Your task to perform on an android device: Go to battery settings Image 0: 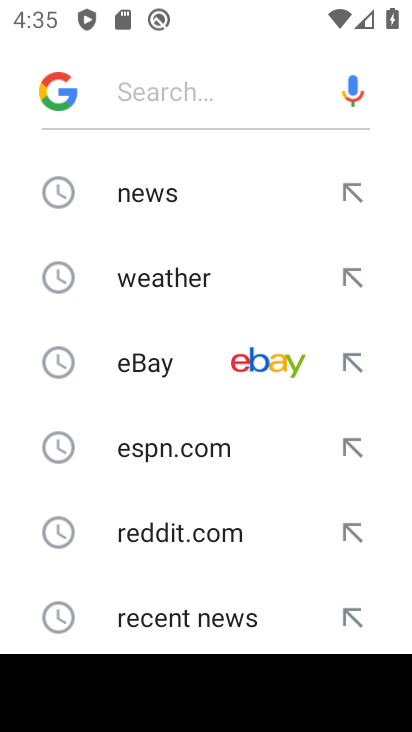
Step 0: press home button
Your task to perform on an android device: Go to battery settings Image 1: 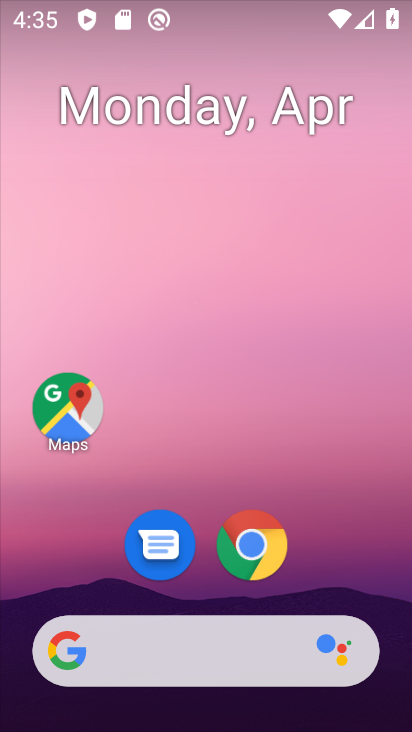
Step 1: drag from (331, 584) to (348, 88)
Your task to perform on an android device: Go to battery settings Image 2: 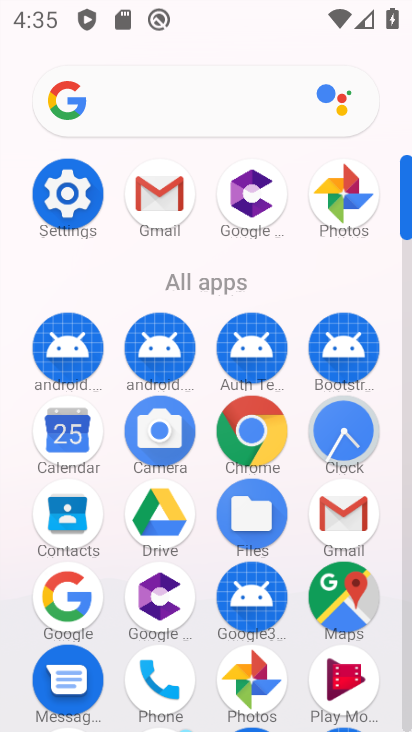
Step 2: click (65, 189)
Your task to perform on an android device: Go to battery settings Image 3: 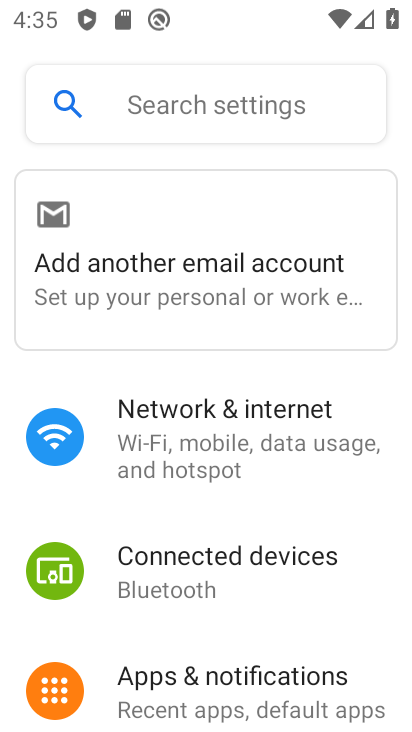
Step 3: drag from (320, 669) to (332, 89)
Your task to perform on an android device: Go to battery settings Image 4: 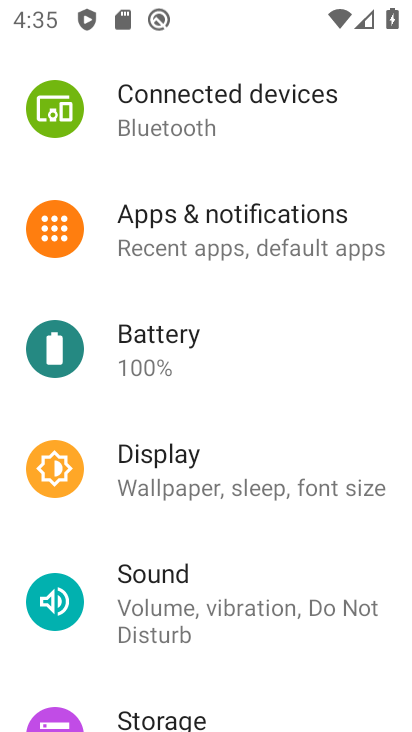
Step 4: click (138, 364)
Your task to perform on an android device: Go to battery settings Image 5: 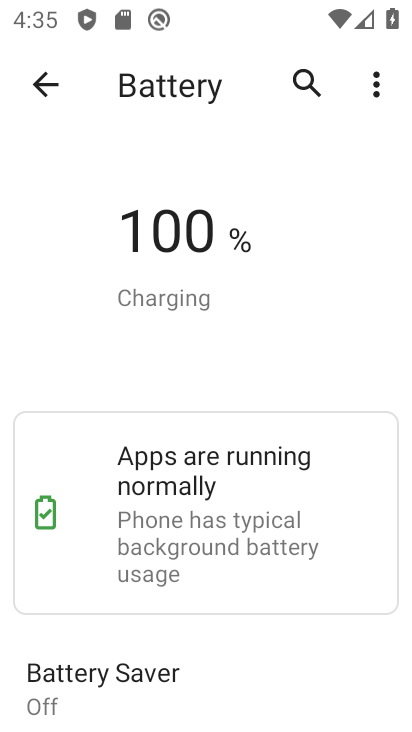
Step 5: task complete